Your task to perform on an android device: Go to notification settings Image 0: 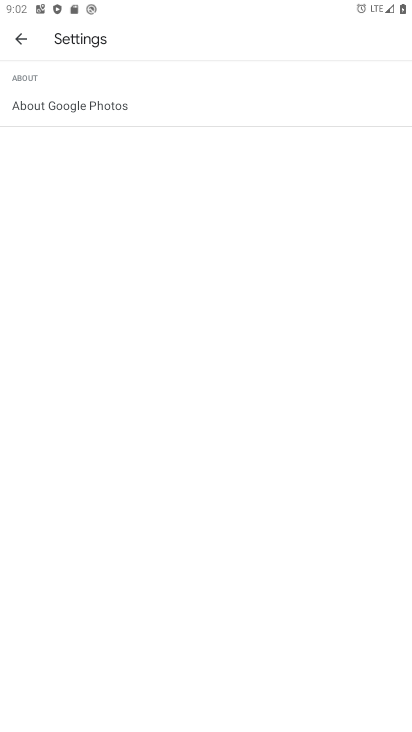
Step 0: press home button
Your task to perform on an android device: Go to notification settings Image 1: 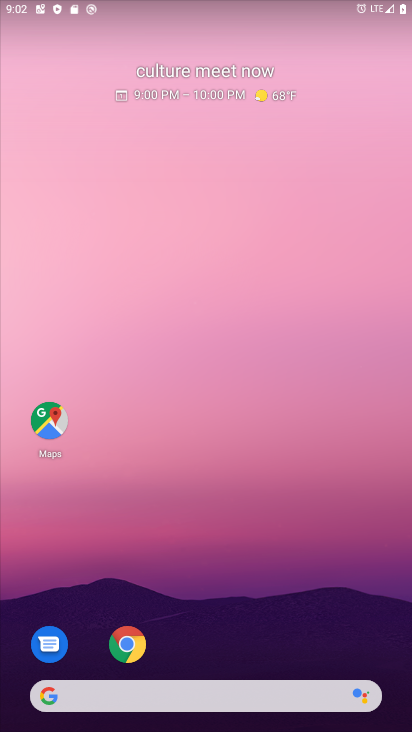
Step 1: drag from (232, 714) to (259, 167)
Your task to perform on an android device: Go to notification settings Image 2: 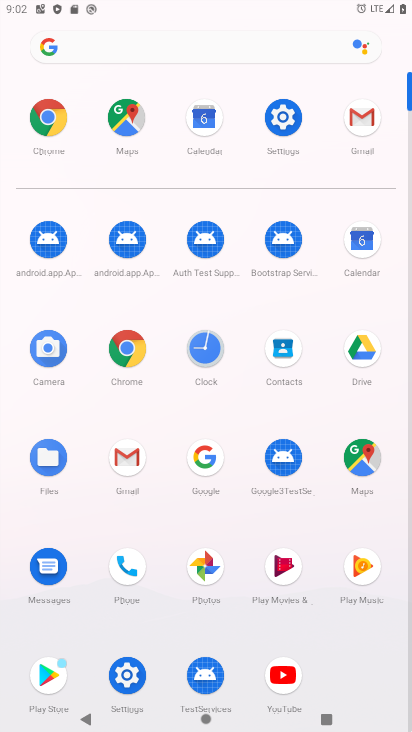
Step 2: click (280, 136)
Your task to perform on an android device: Go to notification settings Image 3: 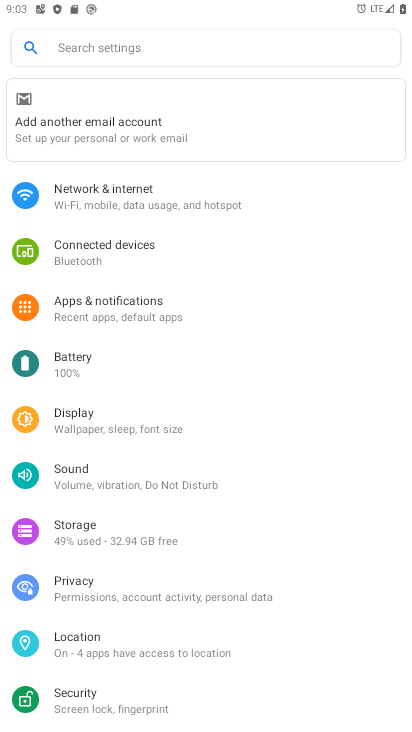
Step 3: click (176, 44)
Your task to perform on an android device: Go to notification settings Image 4: 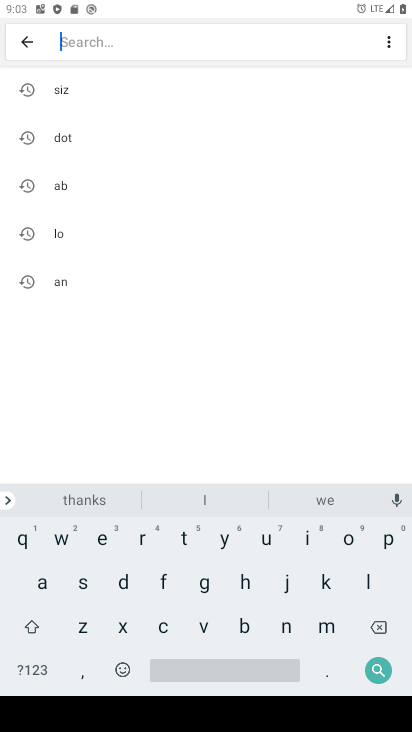
Step 4: click (286, 624)
Your task to perform on an android device: Go to notification settings Image 5: 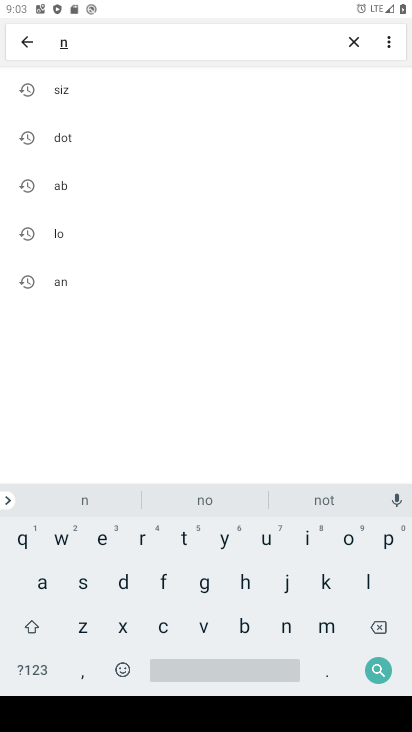
Step 5: click (350, 538)
Your task to perform on an android device: Go to notification settings Image 6: 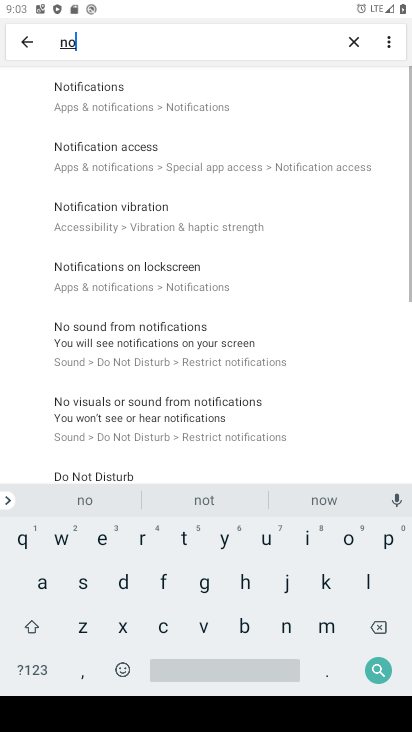
Step 6: click (124, 89)
Your task to perform on an android device: Go to notification settings Image 7: 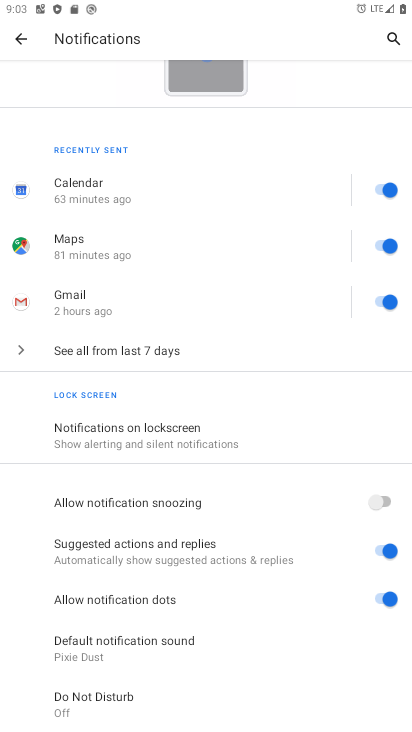
Step 7: click (100, 406)
Your task to perform on an android device: Go to notification settings Image 8: 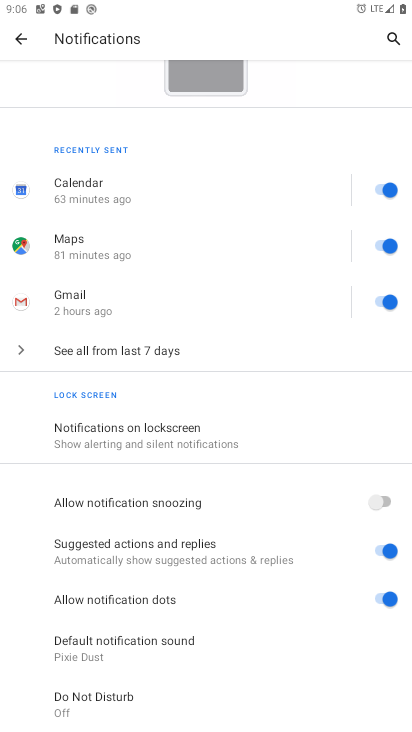
Step 8: task complete